Your task to perform on an android device: Open Maps and search for coffee Image 0: 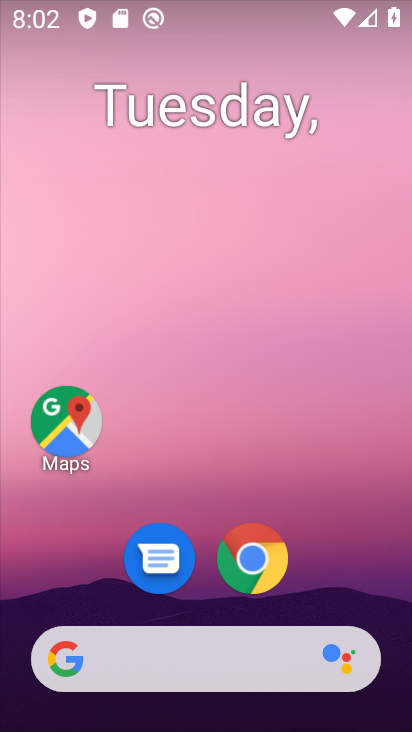
Step 0: click (72, 427)
Your task to perform on an android device: Open Maps and search for coffee Image 1: 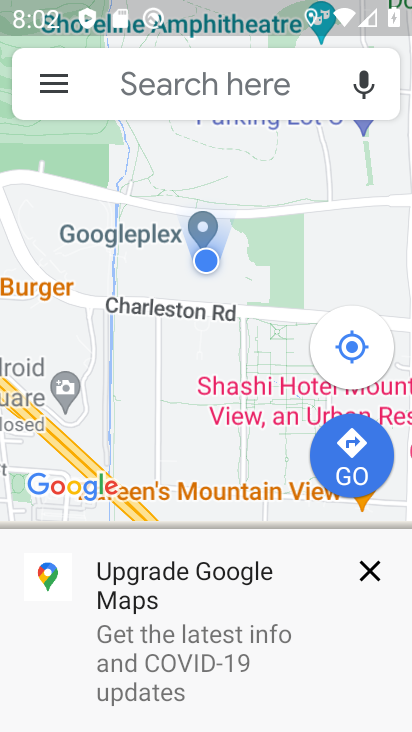
Step 1: click (249, 98)
Your task to perform on an android device: Open Maps and search for coffee Image 2: 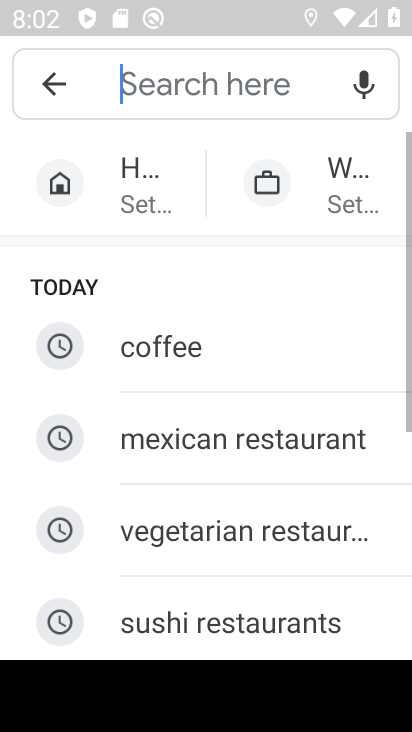
Step 2: click (155, 347)
Your task to perform on an android device: Open Maps and search for coffee Image 3: 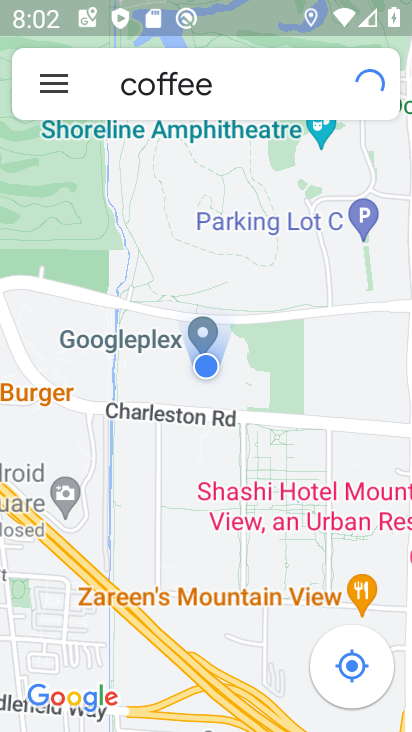
Step 3: task complete